Your task to perform on an android device: turn off sleep mode Image 0: 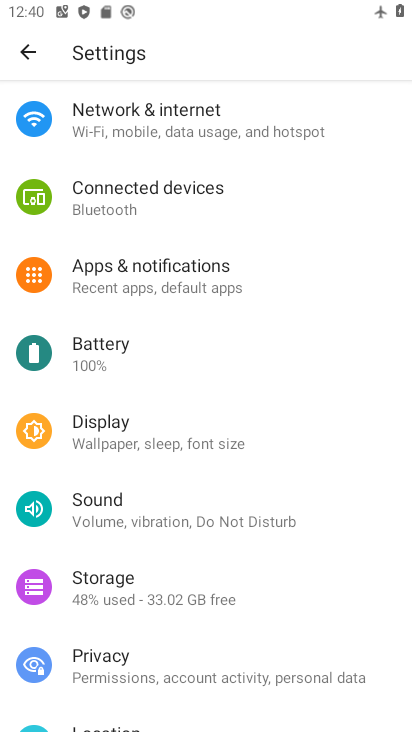
Step 0: press home button
Your task to perform on an android device: turn off sleep mode Image 1: 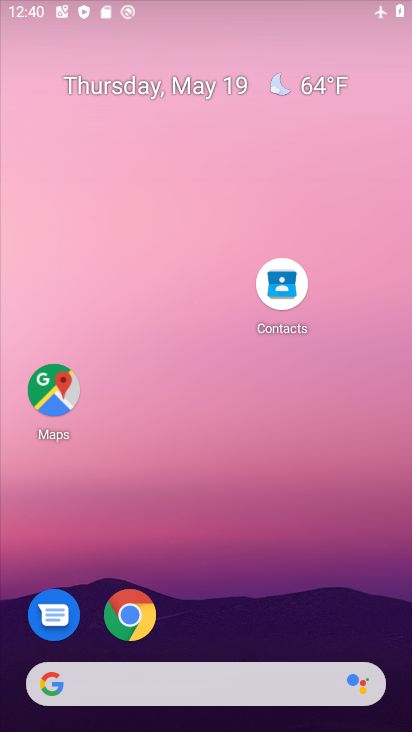
Step 1: drag from (197, 518) to (237, 107)
Your task to perform on an android device: turn off sleep mode Image 2: 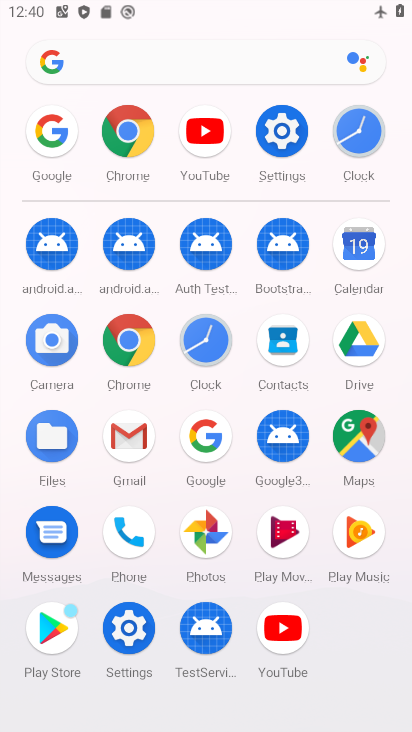
Step 2: click (296, 143)
Your task to perform on an android device: turn off sleep mode Image 3: 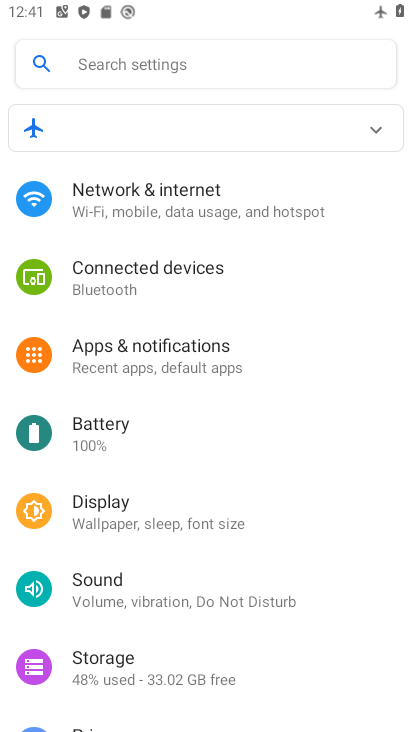
Step 3: drag from (122, 586) to (168, 368)
Your task to perform on an android device: turn off sleep mode Image 4: 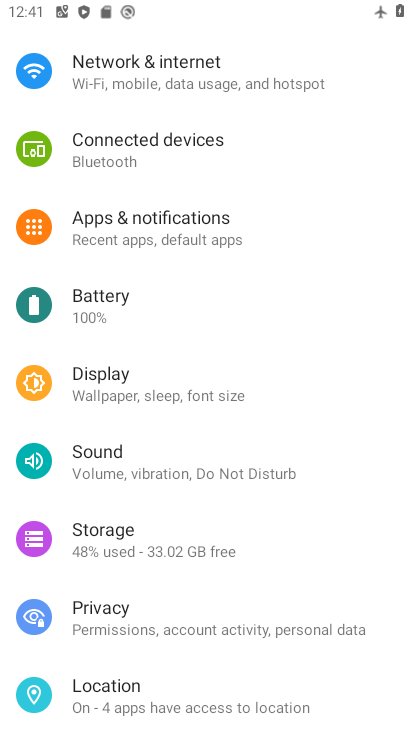
Step 4: click (166, 397)
Your task to perform on an android device: turn off sleep mode Image 5: 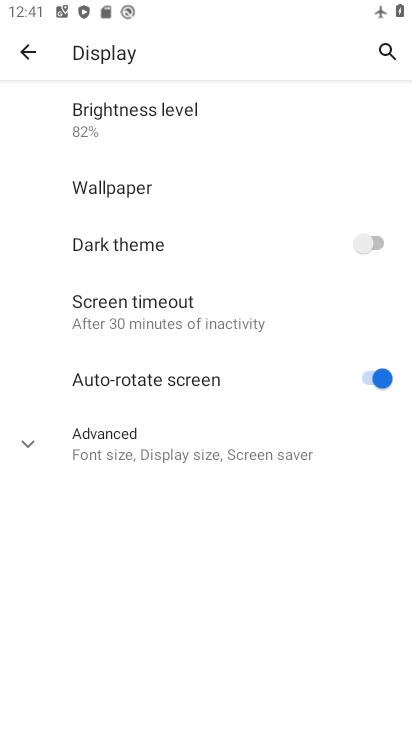
Step 5: click (148, 449)
Your task to perform on an android device: turn off sleep mode Image 6: 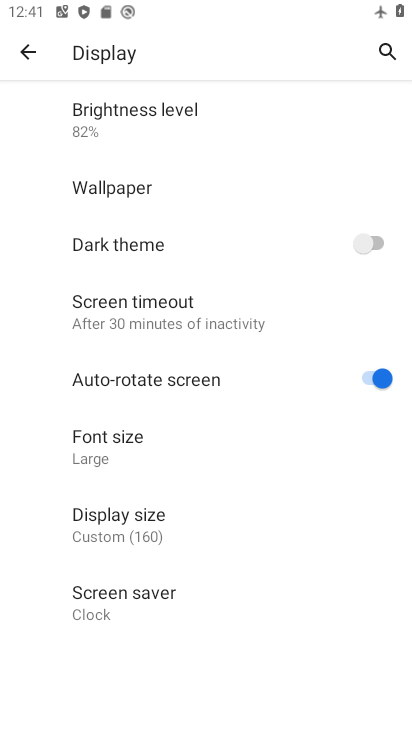
Step 6: task complete